Your task to perform on an android device: Open internet settings Image 0: 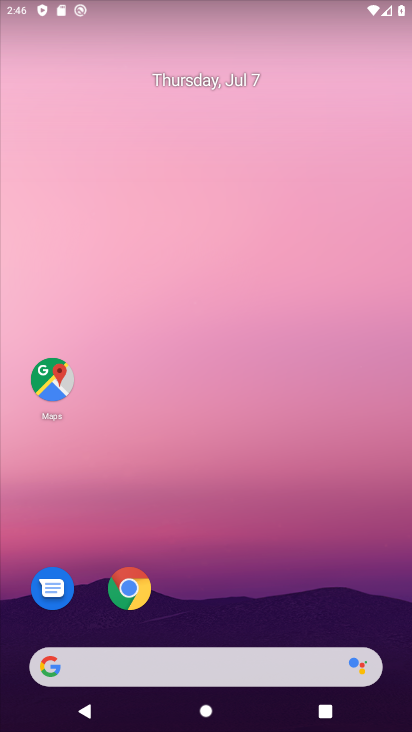
Step 0: drag from (194, 600) to (220, 267)
Your task to perform on an android device: Open internet settings Image 1: 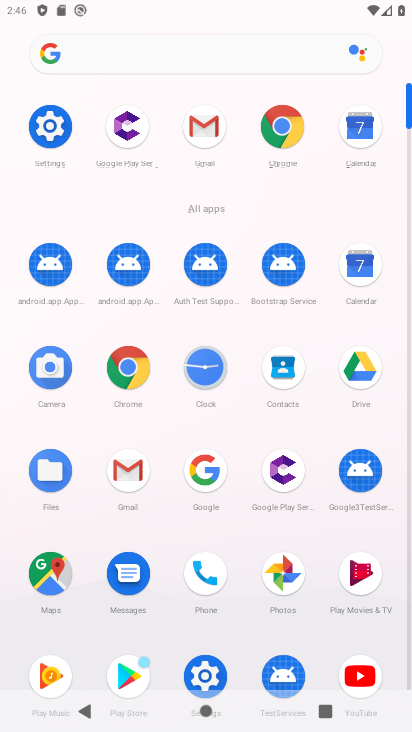
Step 1: click (38, 131)
Your task to perform on an android device: Open internet settings Image 2: 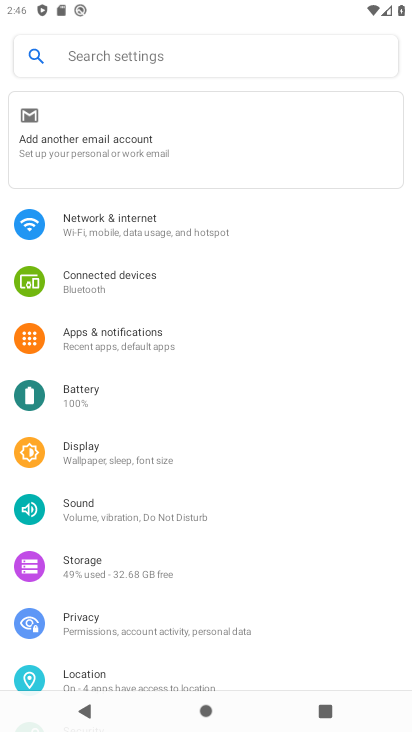
Step 2: click (135, 223)
Your task to perform on an android device: Open internet settings Image 3: 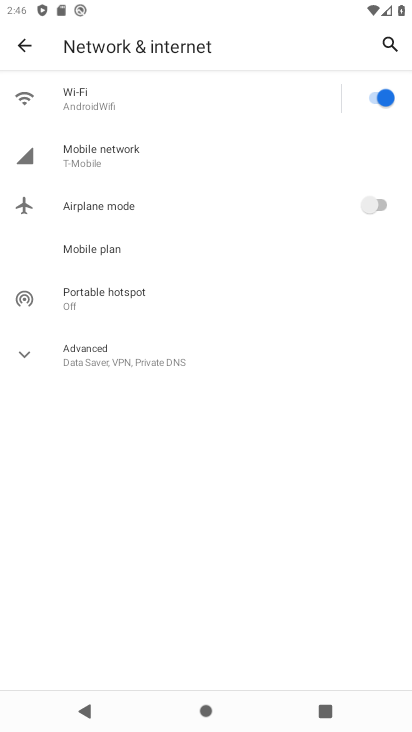
Step 3: click (102, 351)
Your task to perform on an android device: Open internet settings Image 4: 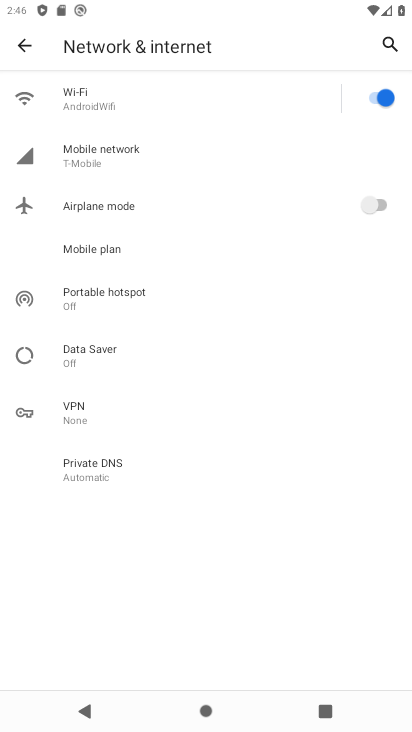
Step 4: task complete